Your task to perform on an android device: Do I have any events today? Image 0: 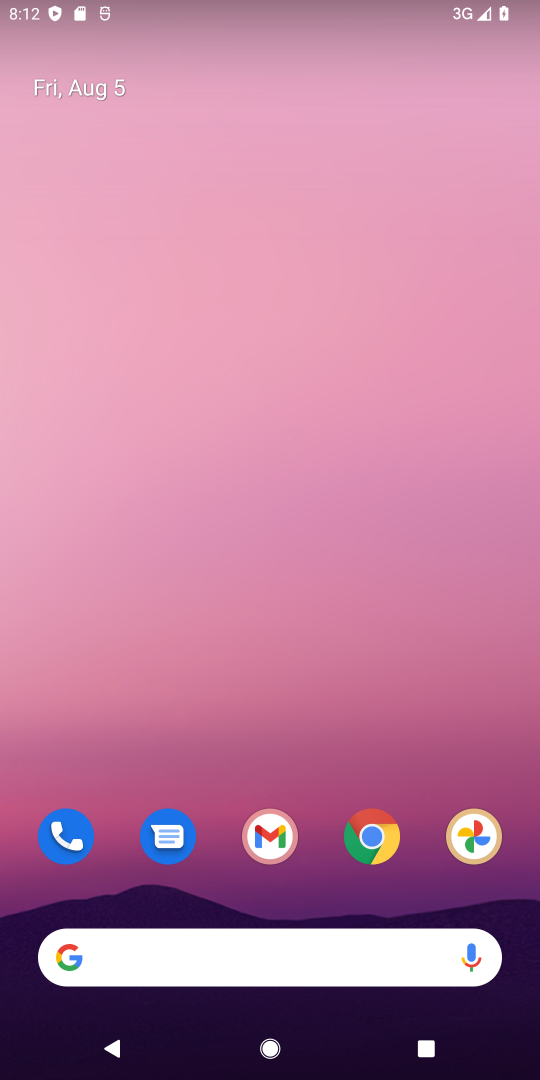
Step 0: drag from (243, 756) to (109, 8)
Your task to perform on an android device: Do I have any events today? Image 1: 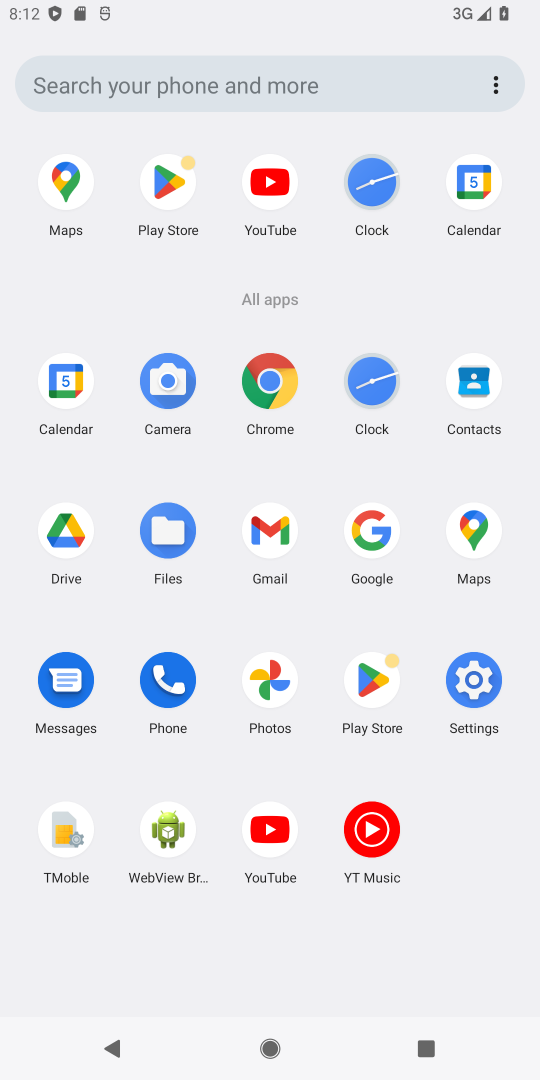
Step 1: click (475, 180)
Your task to perform on an android device: Do I have any events today? Image 2: 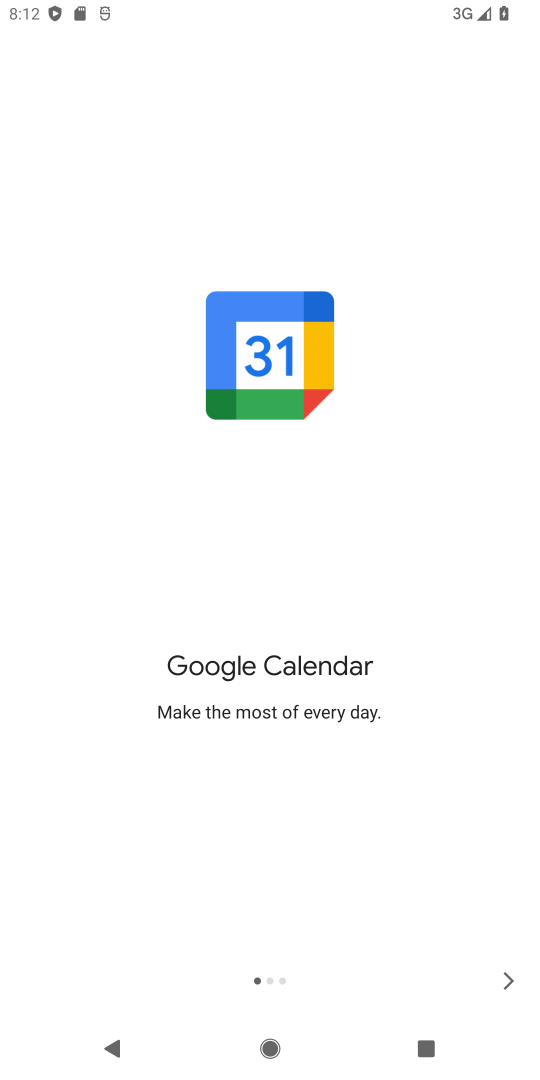
Step 2: click (506, 982)
Your task to perform on an android device: Do I have any events today? Image 3: 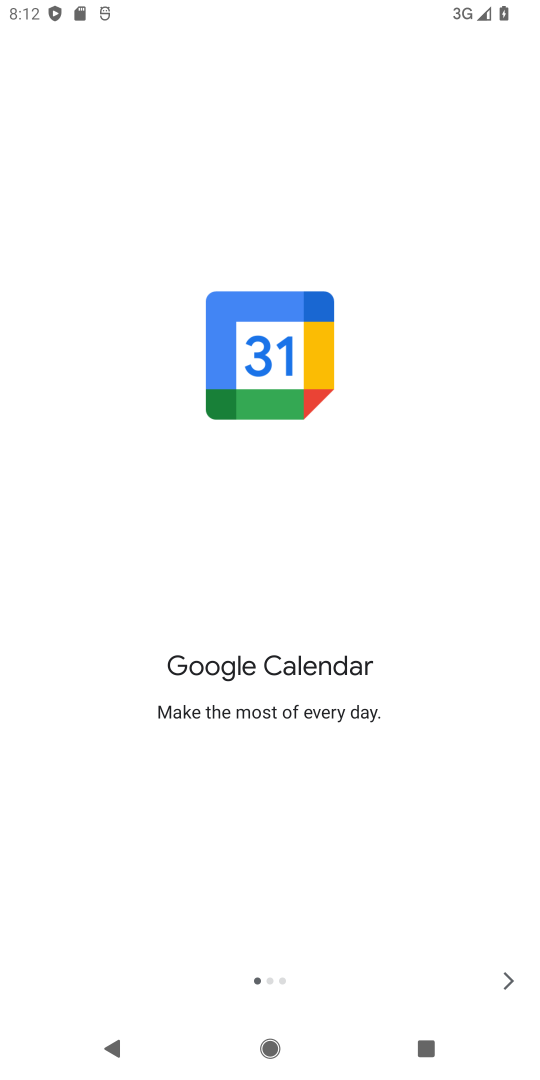
Step 3: click (506, 982)
Your task to perform on an android device: Do I have any events today? Image 4: 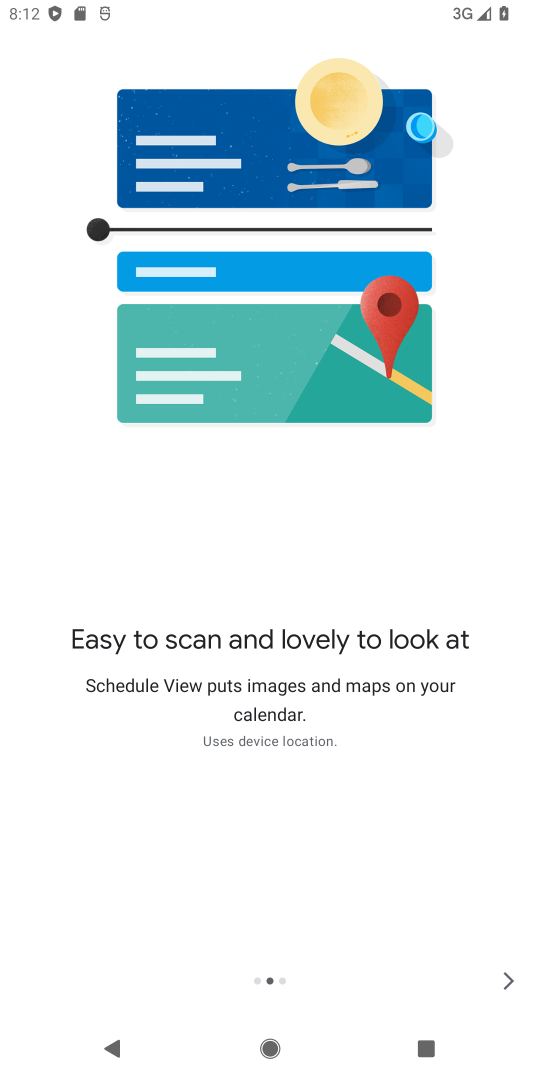
Step 4: click (506, 982)
Your task to perform on an android device: Do I have any events today? Image 5: 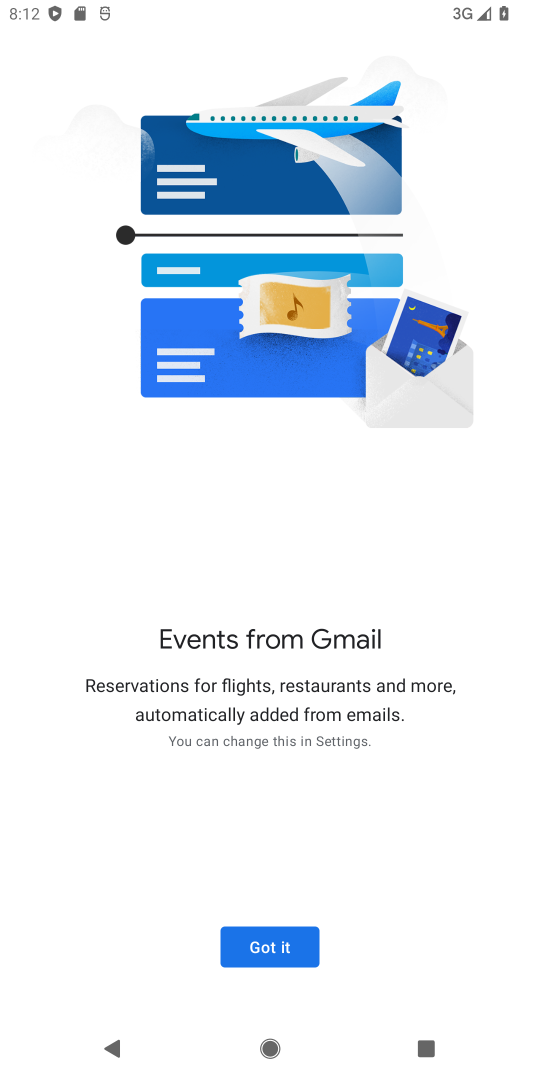
Step 5: click (506, 982)
Your task to perform on an android device: Do I have any events today? Image 6: 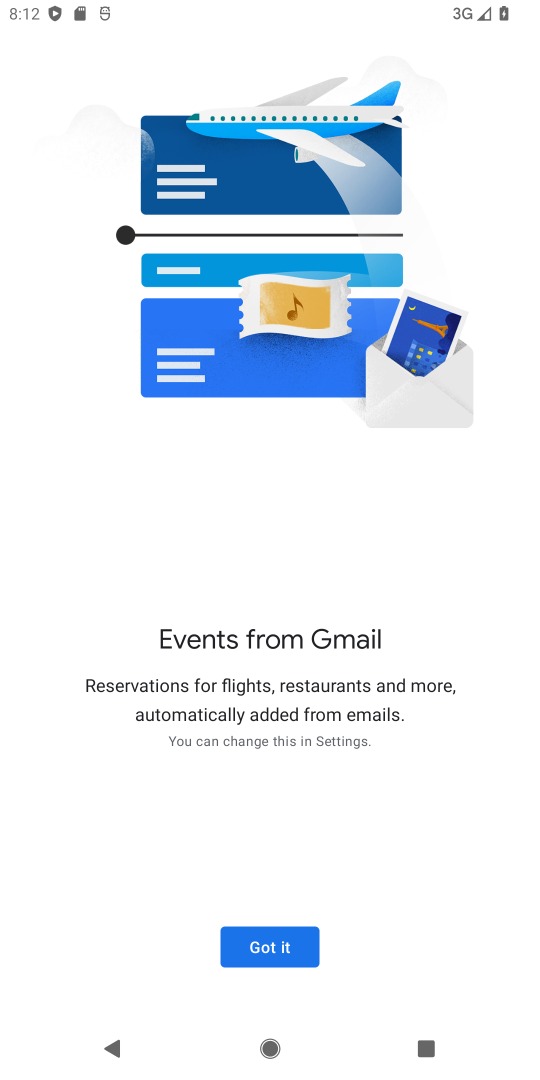
Step 6: click (280, 946)
Your task to perform on an android device: Do I have any events today? Image 7: 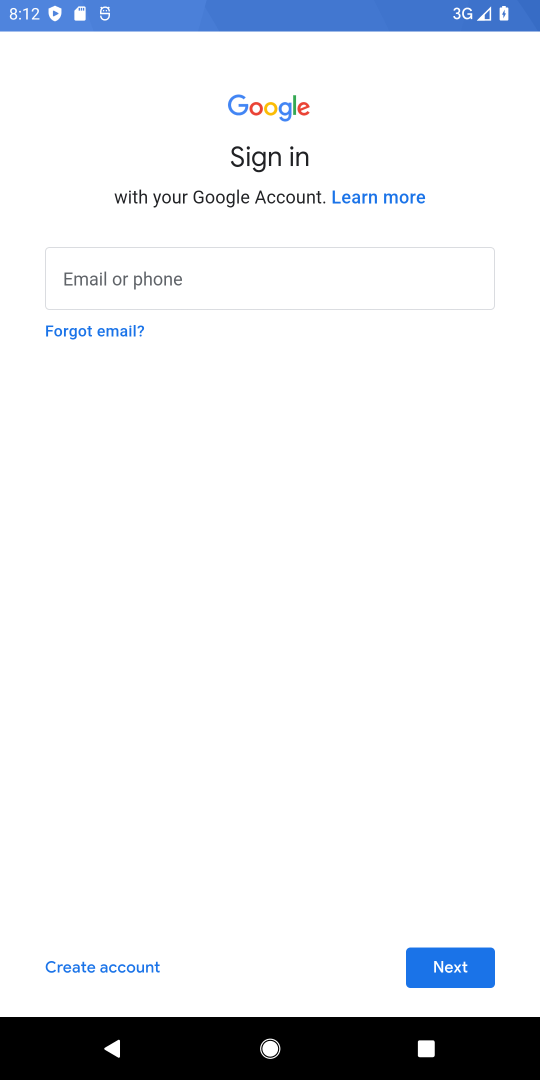
Step 7: click (455, 964)
Your task to perform on an android device: Do I have any events today? Image 8: 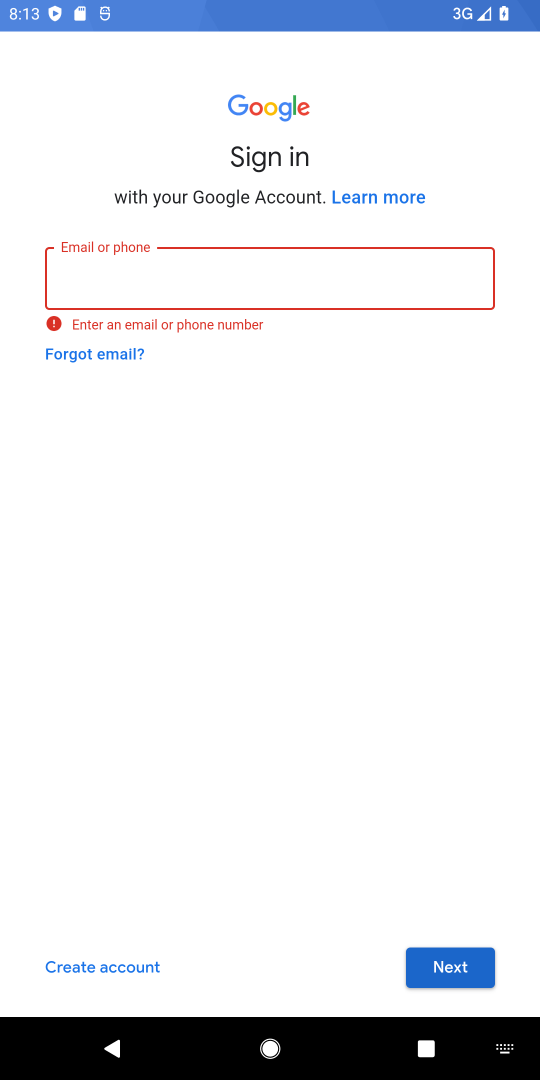
Step 8: task complete